Your task to perform on an android device: Find coffee shops on Maps Image 0: 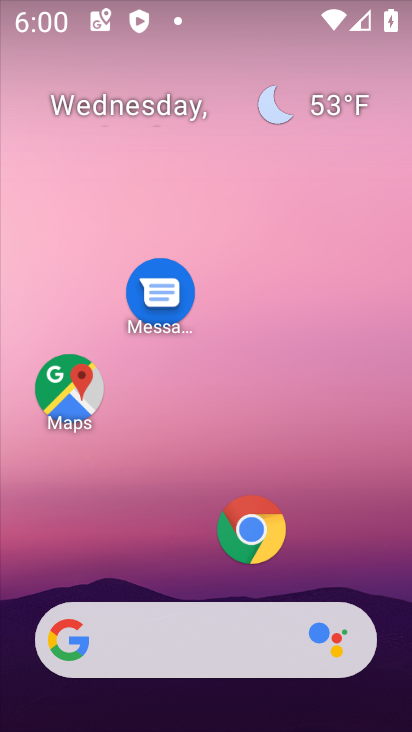
Step 0: click (65, 375)
Your task to perform on an android device: Find coffee shops on Maps Image 1: 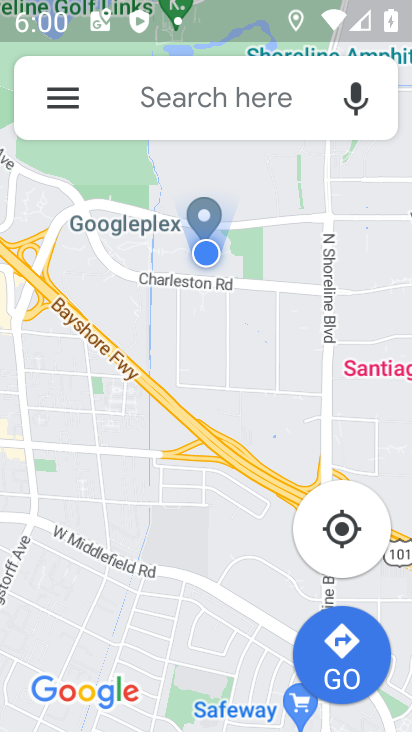
Step 1: click (201, 107)
Your task to perform on an android device: Find coffee shops on Maps Image 2: 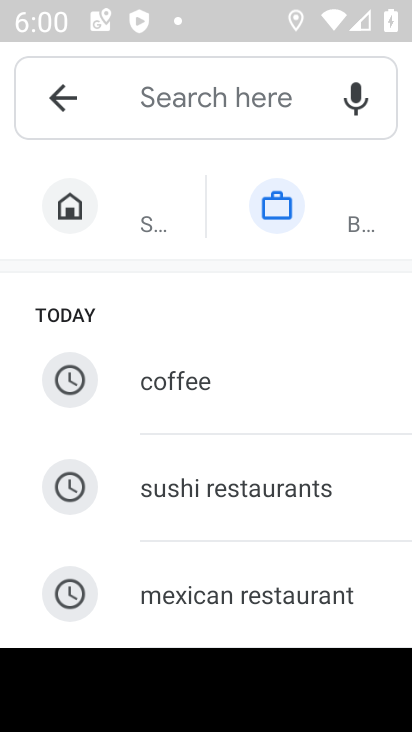
Step 2: drag from (251, 567) to (249, 249)
Your task to perform on an android device: Find coffee shops on Maps Image 3: 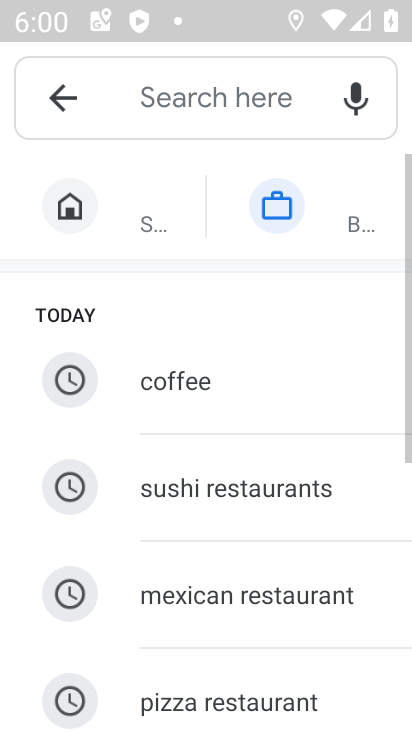
Step 3: drag from (250, 627) to (248, 328)
Your task to perform on an android device: Find coffee shops on Maps Image 4: 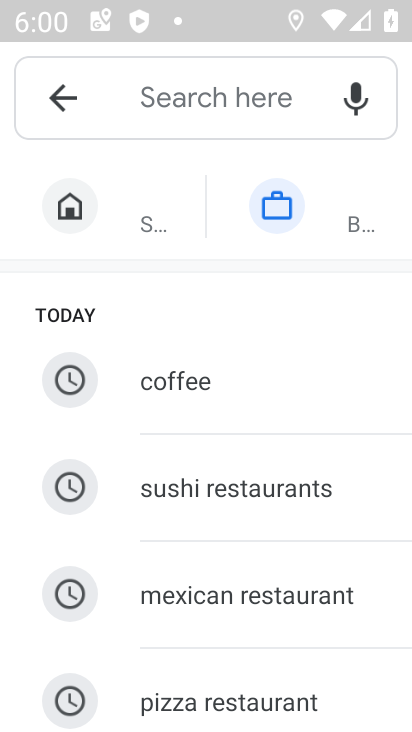
Step 4: drag from (230, 633) to (222, 210)
Your task to perform on an android device: Find coffee shops on Maps Image 5: 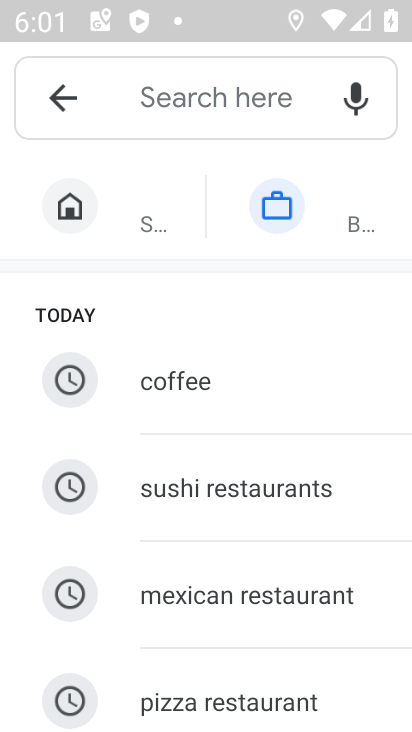
Step 5: drag from (247, 633) to (218, 302)
Your task to perform on an android device: Find coffee shops on Maps Image 6: 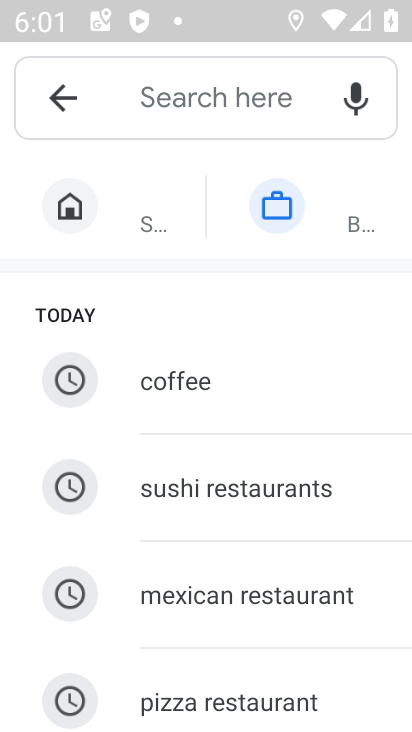
Step 6: click (179, 102)
Your task to perform on an android device: Find coffee shops on Maps Image 7: 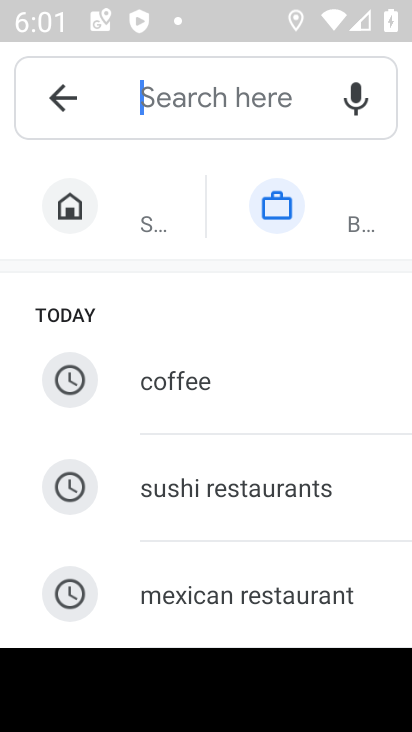
Step 7: type "coffee shops"
Your task to perform on an android device: Find coffee shops on Maps Image 8: 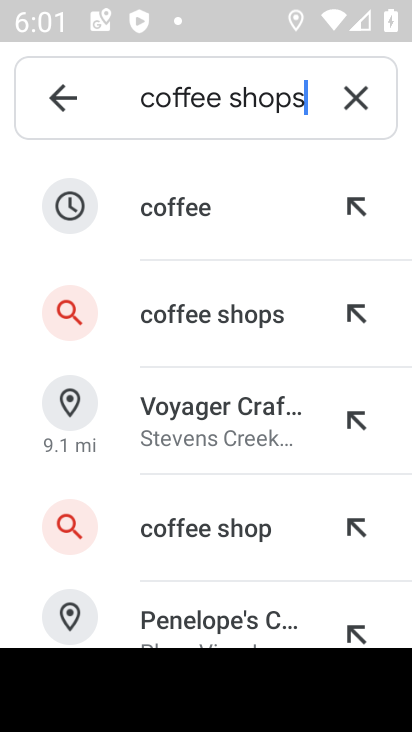
Step 8: click (255, 322)
Your task to perform on an android device: Find coffee shops on Maps Image 9: 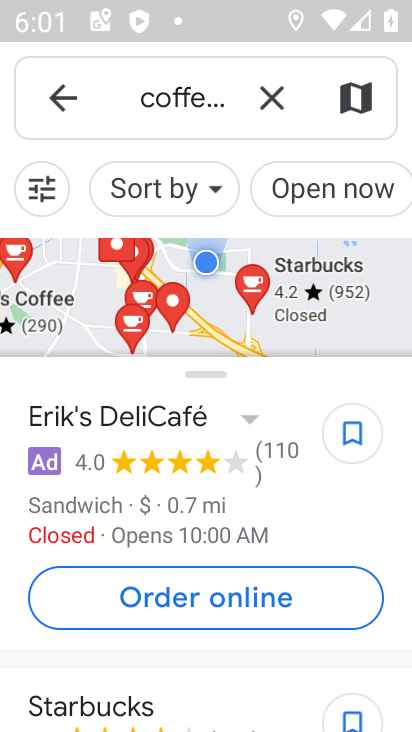
Step 9: task complete